Your task to perform on an android device: Open Google Image 0: 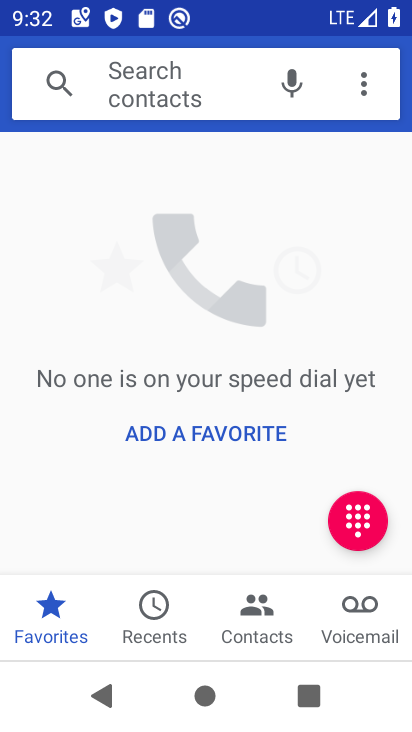
Step 0: press home button
Your task to perform on an android device: Open Google Image 1: 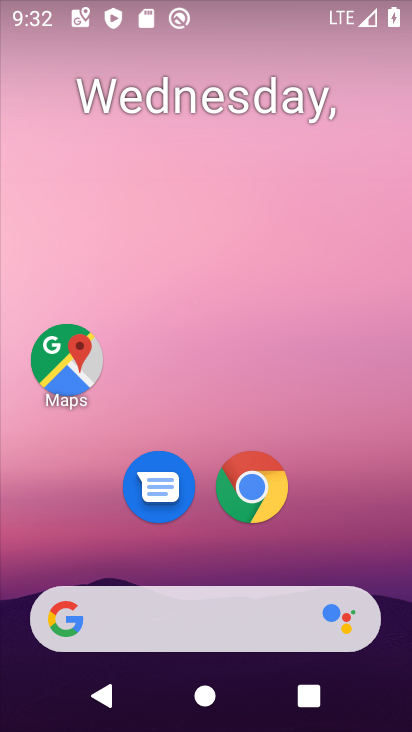
Step 1: click (229, 608)
Your task to perform on an android device: Open Google Image 2: 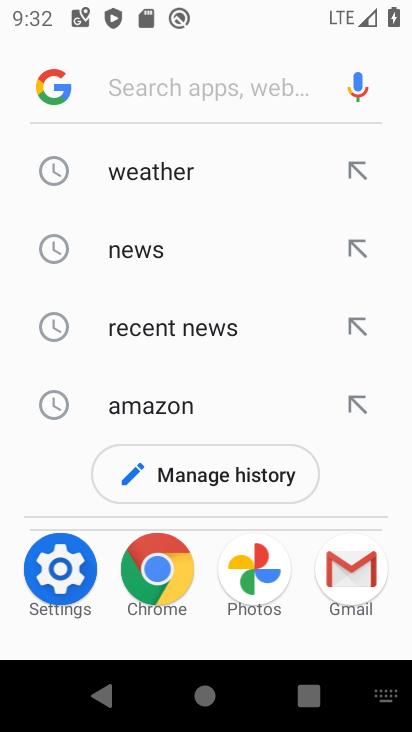
Step 2: click (52, 89)
Your task to perform on an android device: Open Google Image 3: 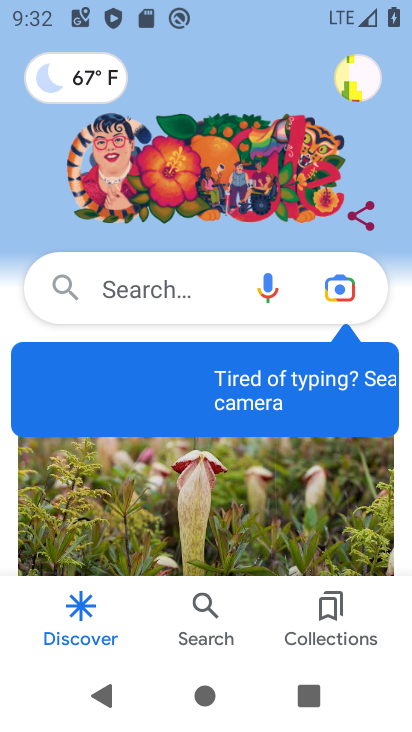
Step 3: task complete